Your task to perform on an android device: Go to calendar. Show me events next week Image 0: 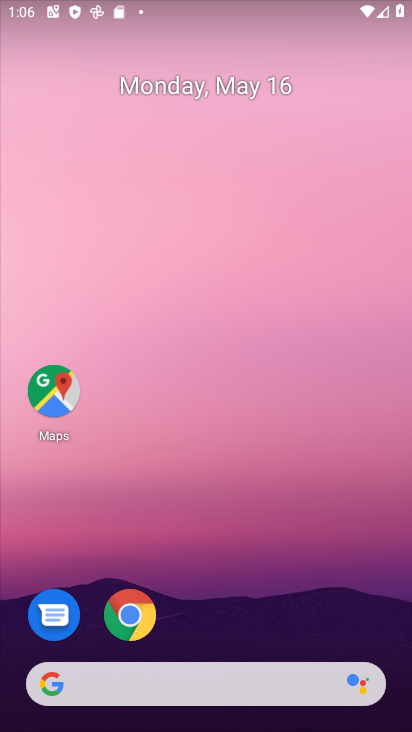
Step 0: press home button
Your task to perform on an android device: Go to calendar. Show me events next week Image 1: 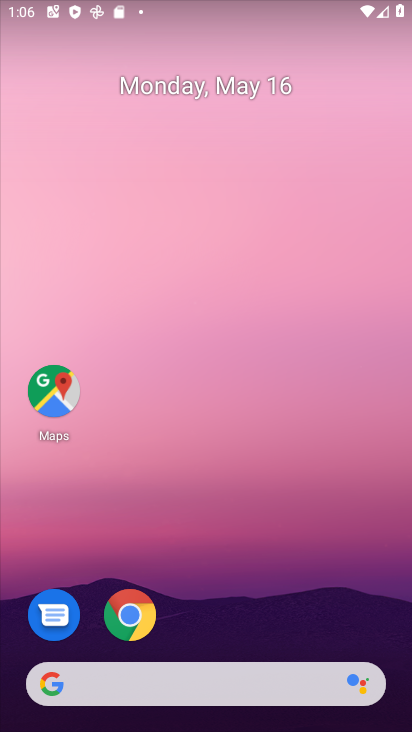
Step 1: drag from (127, 724) to (205, 48)
Your task to perform on an android device: Go to calendar. Show me events next week Image 2: 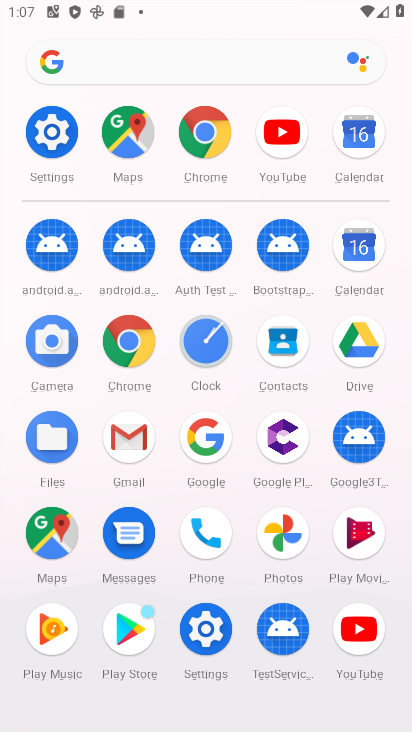
Step 2: click (359, 241)
Your task to perform on an android device: Go to calendar. Show me events next week Image 3: 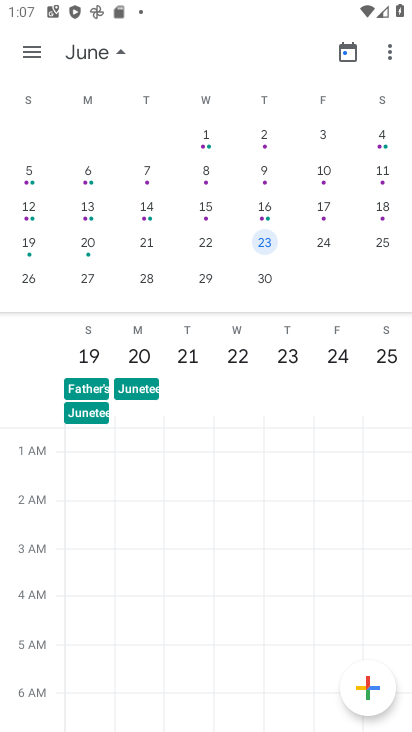
Step 3: drag from (300, 151) to (393, 158)
Your task to perform on an android device: Go to calendar. Show me events next week Image 4: 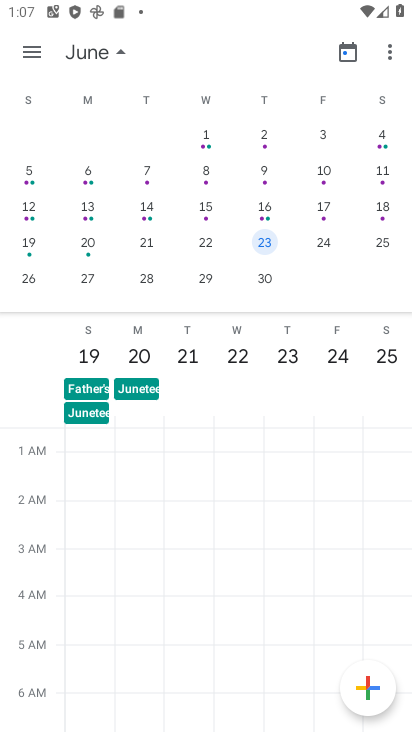
Step 4: drag from (169, 165) to (366, 164)
Your task to perform on an android device: Go to calendar. Show me events next week Image 5: 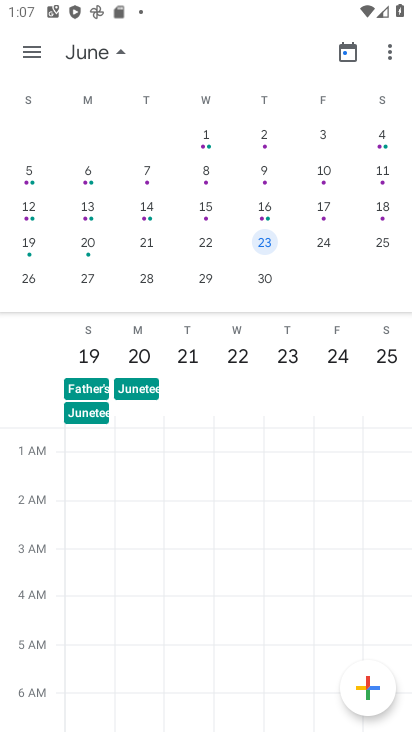
Step 5: click (293, 107)
Your task to perform on an android device: Go to calendar. Show me events next week Image 6: 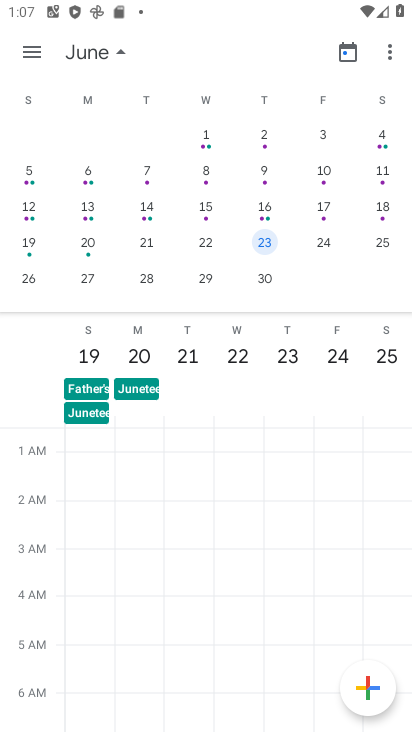
Step 6: task complete